Your task to perform on an android device: all mails in gmail Image 0: 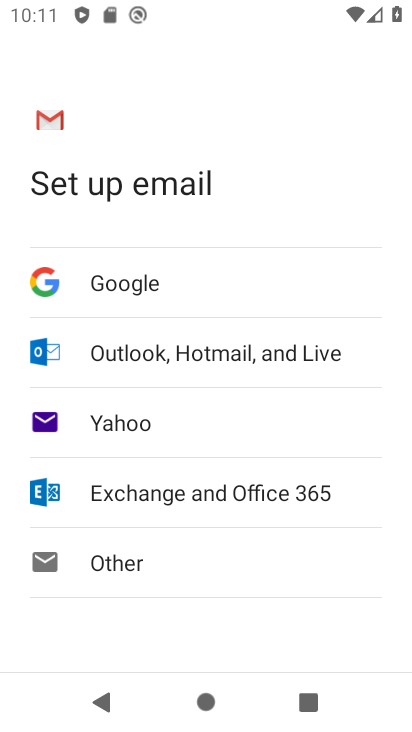
Step 0: press home button
Your task to perform on an android device: all mails in gmail Image 1: 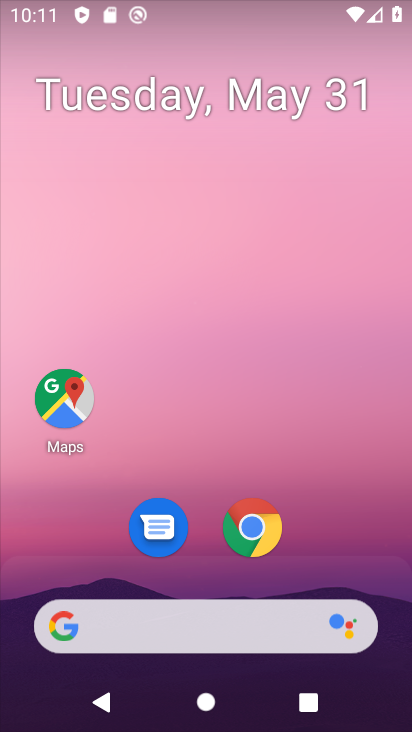
Step 1: drag from (320, 579) to (290, 0)
Your task to perform on an android device: all mails in gmail Image 2: 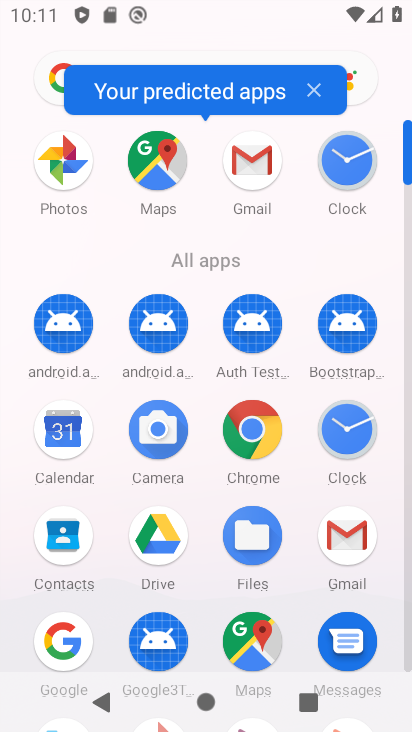
Step 2: click (262, 158)
Your task to perform on an android device: all mails in gmail Image 3: 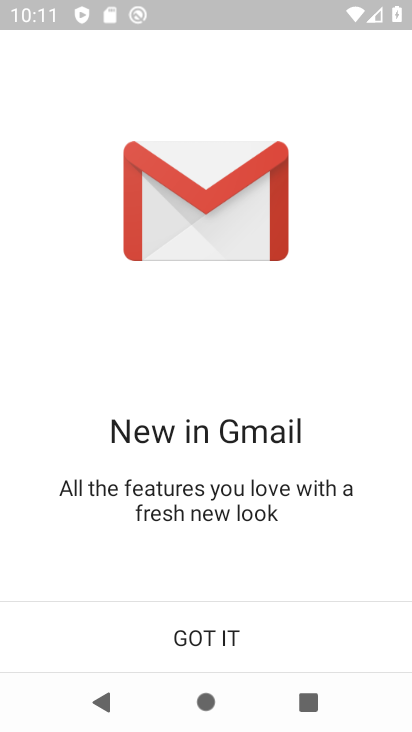
Step 3: click (200, 625)
Your task to perform on an android device: all mails in gmail Image 4: 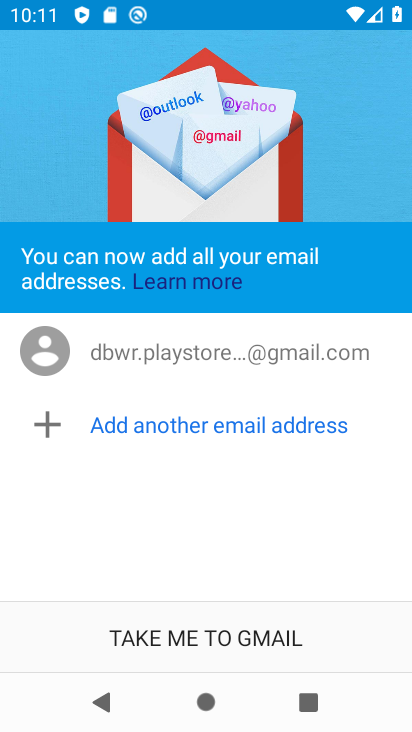
Step 4: click (214, 626)
Your task to perform on an android device: all mails in gmail Image 5: 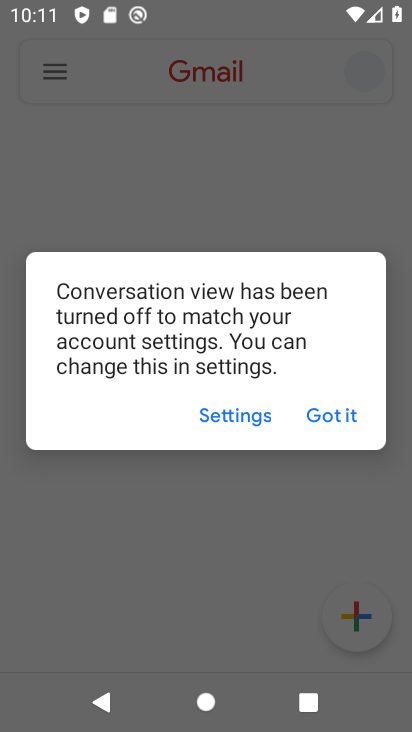
Step 5: click (311, 419)
Your task to perform on an android device: all mails in gmail Image 6: 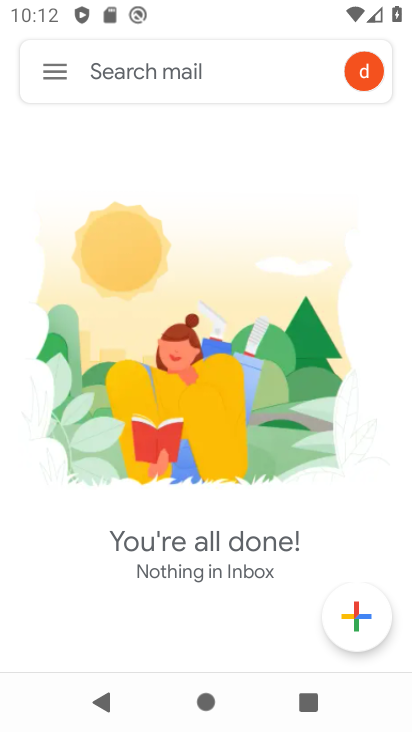
Step 6: click (53, 67)
Your task to perform on an android device: all mails in gmail Image 7: 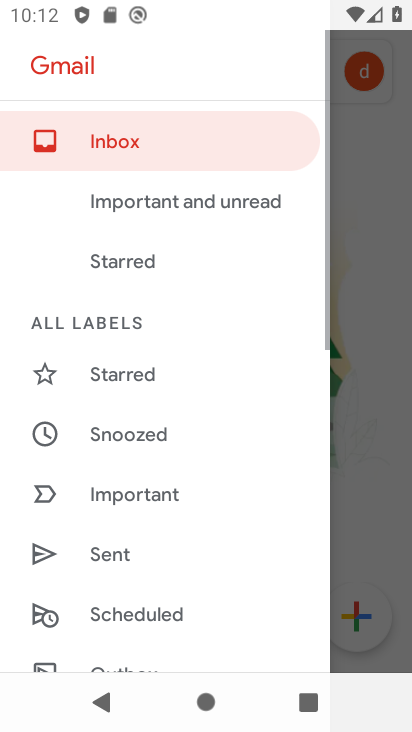
Step 7: drag from (179, 549) to (190, 138)
Your task to perform on an android device: all mails in gmail Image 8: 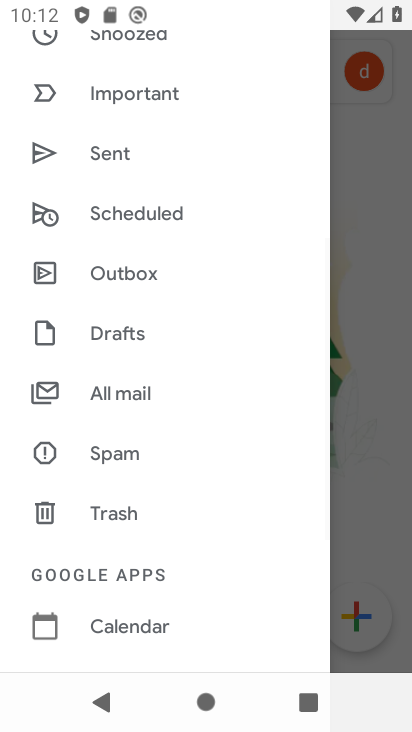
Step 8: click (188, 387)
Your task to perform on an android device: all mails in gmail Image 9: 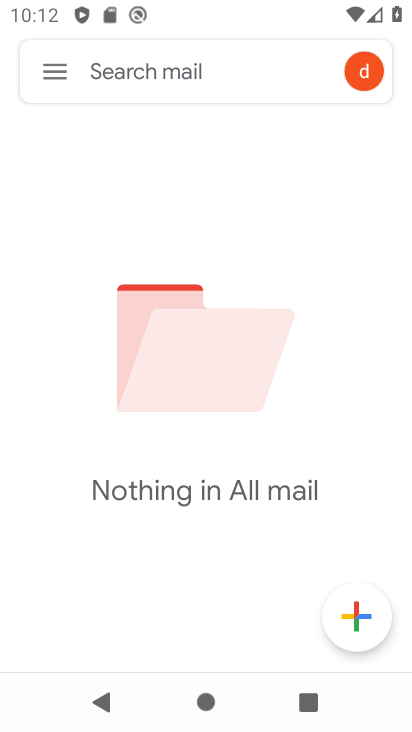
Step 9: task complete